Your task to perform on an android device: toggle pop-ups in chrome Image 0: 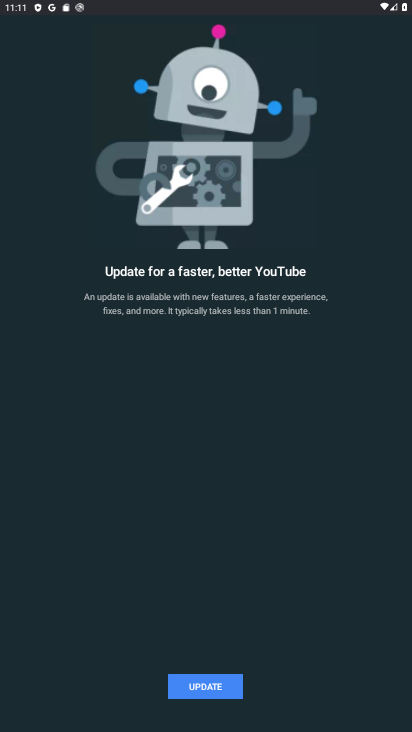
Step 0: press home button
Your task to perform on an android device: toggle pop-ups in chrome Image 1: 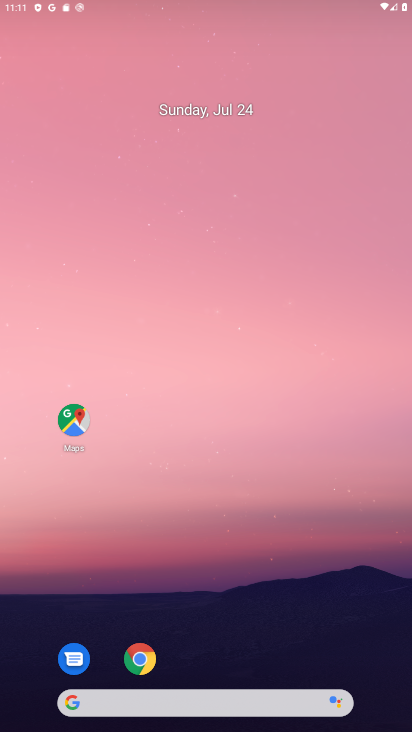
Step 1: drag from (333, 656) to (325, 194)
Your task to perform on an android device: toggle pop-ups in chrome Image 2: 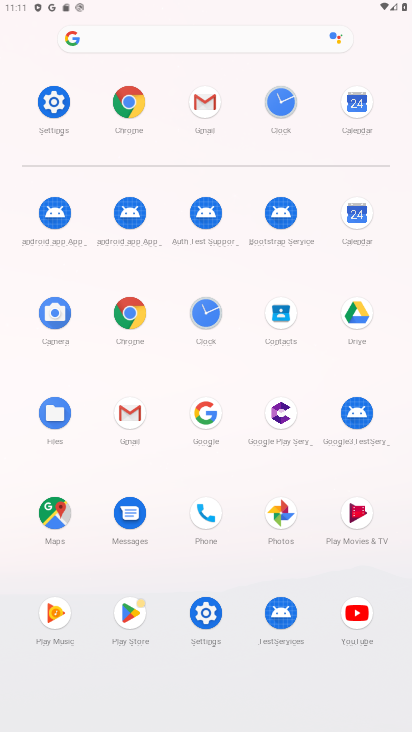
Step 2: click (72, 89)
Your task to perform on an android device: toggle pop-ups in chrome Image 3: 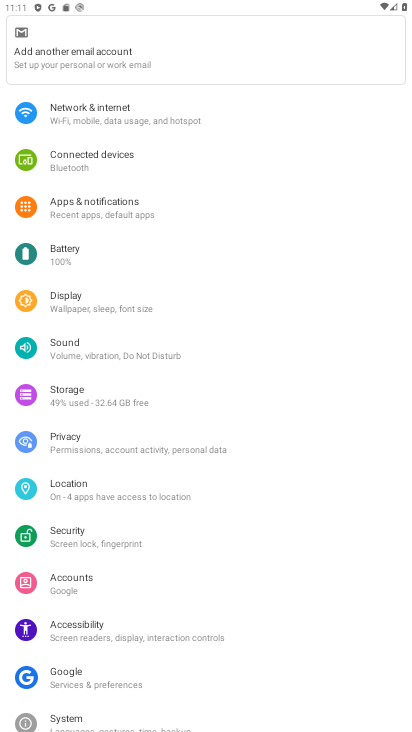
Step 3: press home button
Your task to perform on an android device: toggle pop-ups in chrome Image 4: 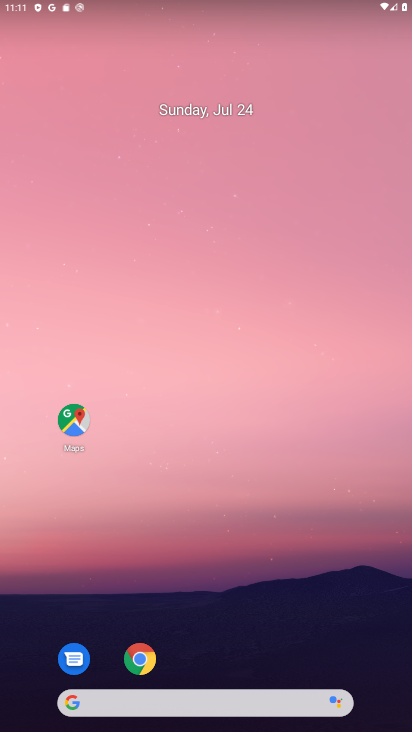
Step 4: click (145, 662)
Your task to perform on an android device: toggle pop-ups in chrome Image 5: 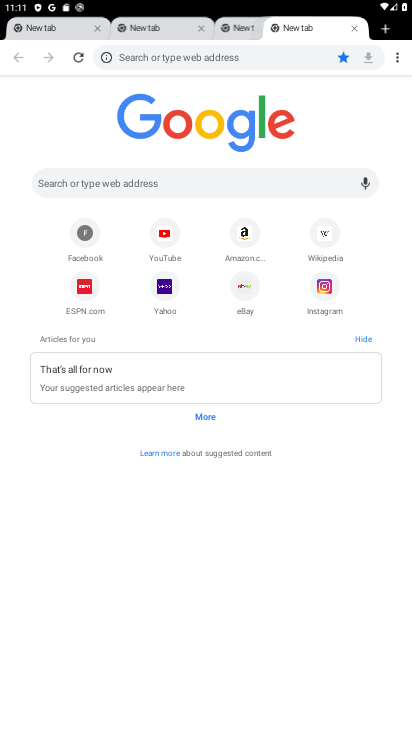
Step 5: click (400, 53)
Your task to perform on an android device: toggle pop-ups in chrome Image 6: 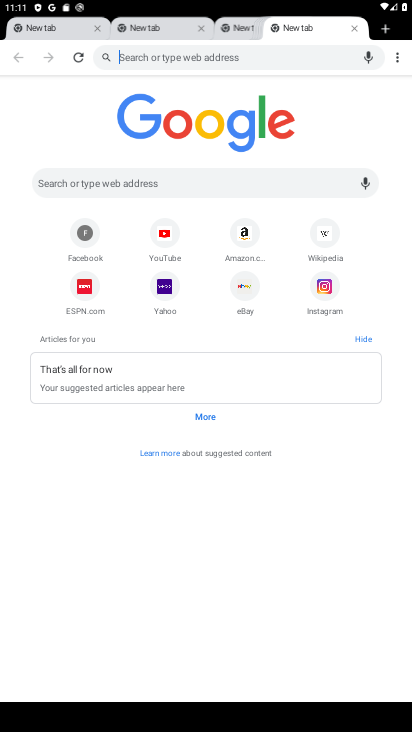
Step 6: click (398, 65)
Your task to perform on an android device: toggle pop-ups in chrome Image 7: 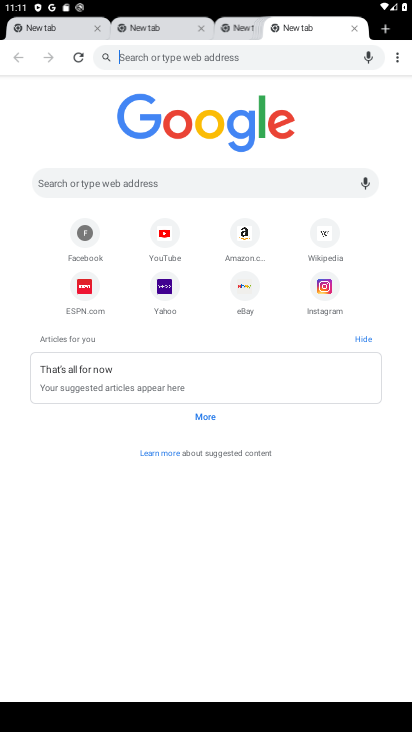
Step 7: click (398, 65)
Your task to perform on an android device: toggle pop-ups in chrome Image 8: 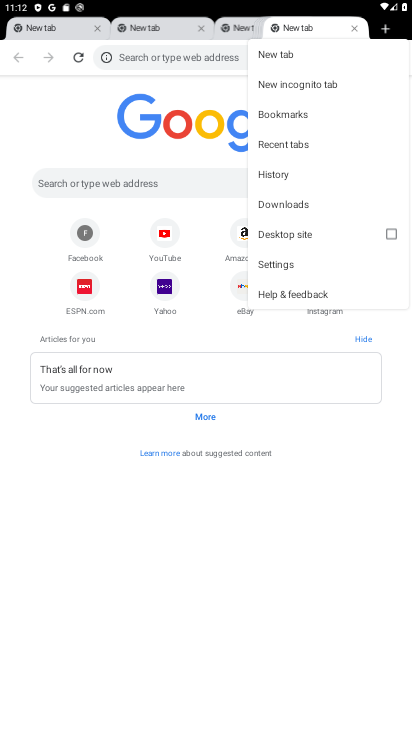
Step 8: click (287, 261)
Your task to perform on an android device: toggle pop-ups in chrome Image 9: 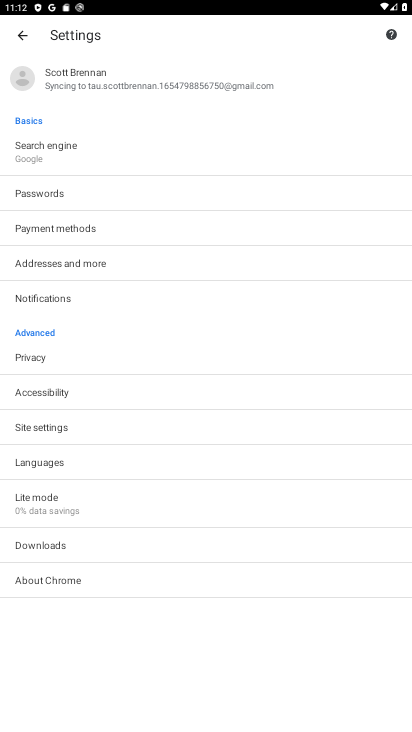
Step 9: click (74, 419)
Your task to perform on an android device: toggle pop-ups in chrome Image 10: 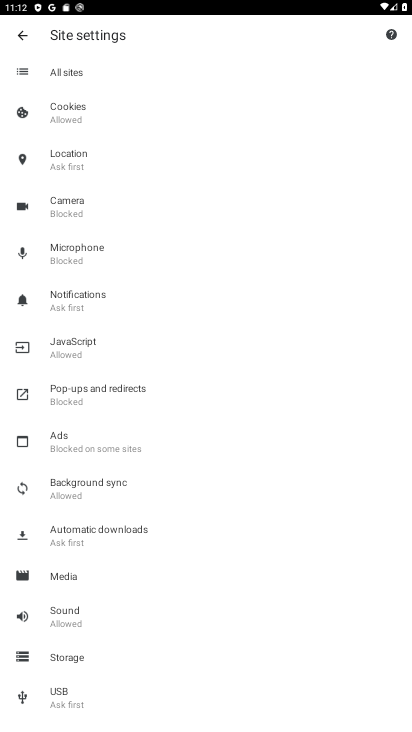
Step 10: click (70, 394)
Your task to perform on an android device: toggle pop-ups in chrome Image 11: 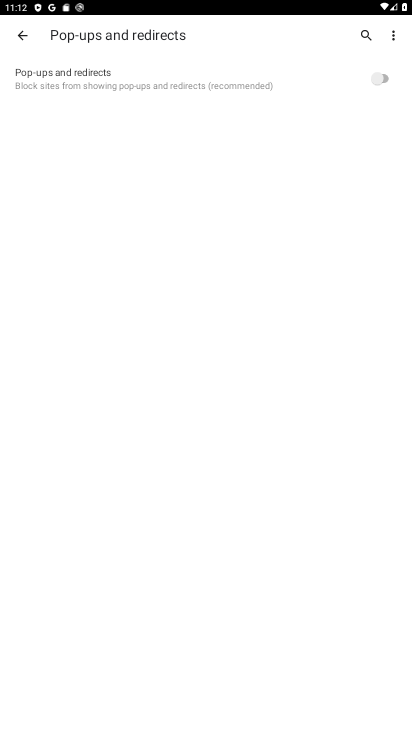
Step 11: click (380, 83)
Your task to perform on an android device: toggle pop-ups in chrome Image 12: 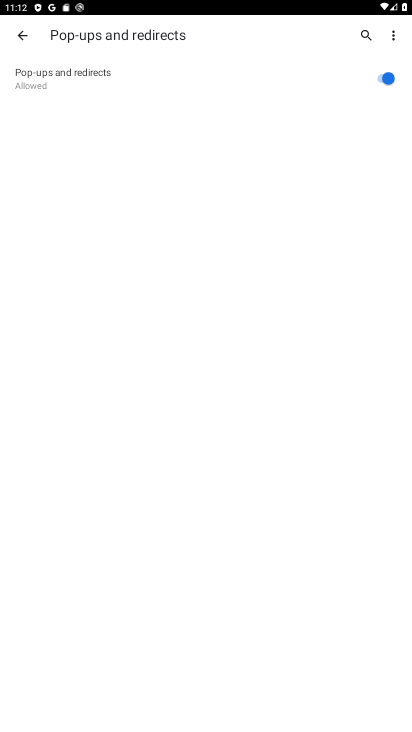
Step 12: task complete